Your task to perform on an android device: Turn on the flashlight Image 0: 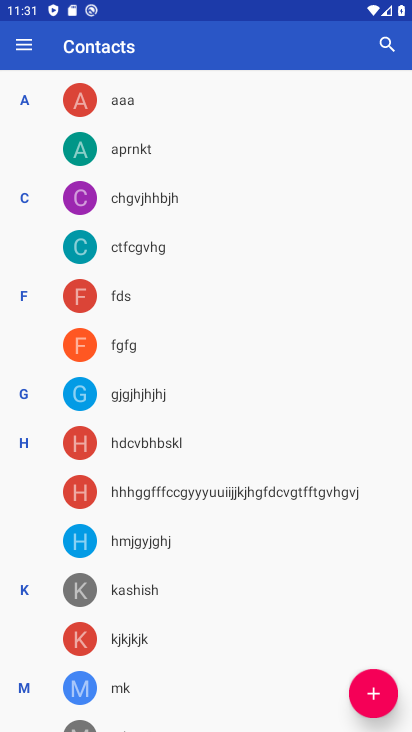
Step 0: press home button
Your task to perform on an android device: Turn on the flashlight Image 1: 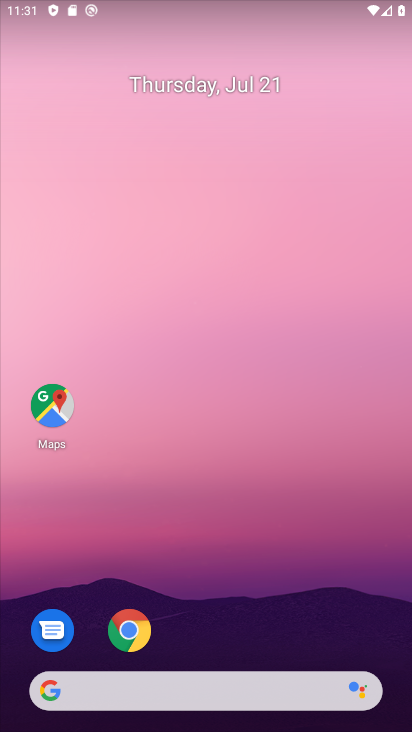
Step 1: task complete